Your task to perform on an android device: toggle pop-ups in chrome Image 0: 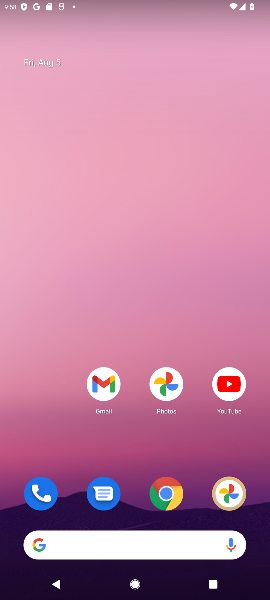
Step 0: drag from (140, 466) to (165, 54)
Your task to perform on an android device: toggle pop-ups in chrome Image 1: 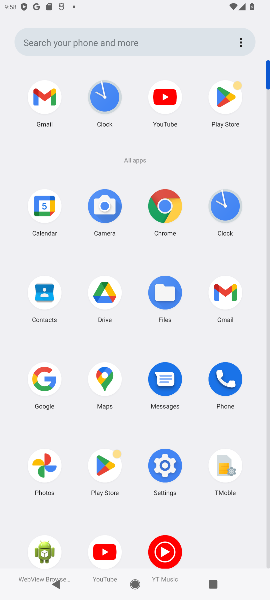
Step 1: click (163, 199)
Your task to perform on an android device: toggle pop-ups in chrome Image 2: 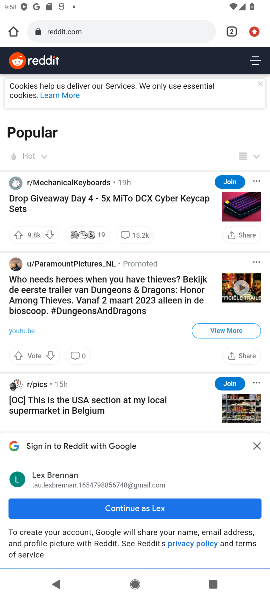
Step 2: click (252, 31)
Your task to perform on an android device: toggle pop-ups in chrome Image 3: 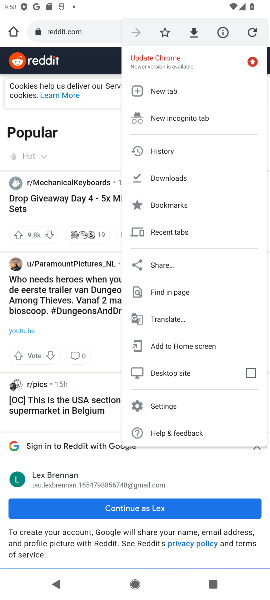
Step 3: click (186, 403)
Your task to perform on an android device: toggle pop-ups in chrome Image 4: 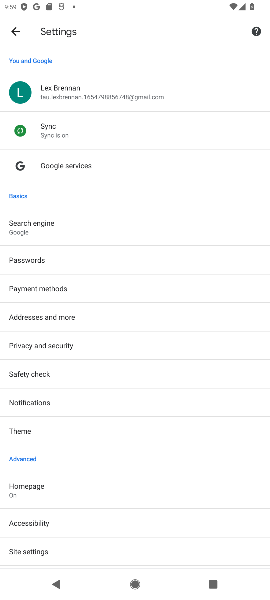
Step 4: drag from (77, 542) to (116, 144)
Your task to perform on an android device: toggle pop-ups in chrome Image 5: 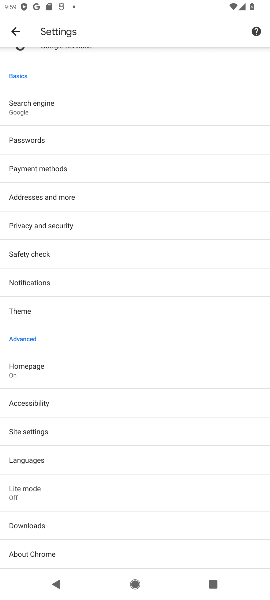
Step 5: click (61, 431)
Your task to perform on an android device: toggle pop-ups in chrome Image 6: 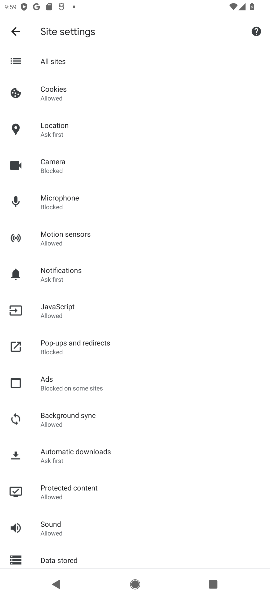
Step 6: click (79, 351)
Your task to perform on an android device: toggle pop-ups in chrome Image 7: 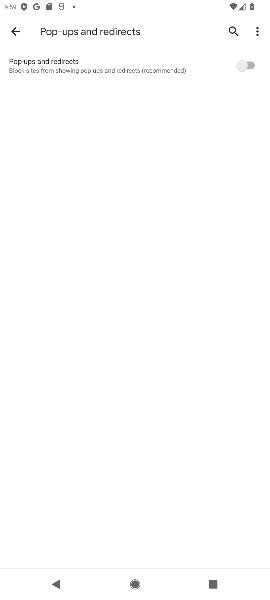
Step 7: click (243, 67)
Your task to perform on an android device: toggle pop-ups in chrome Image 8: 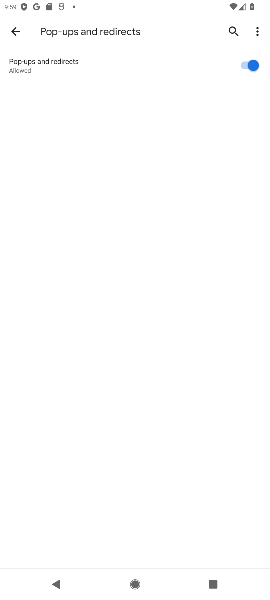
Step 8: task complete